Your task to perform on an android device: Show me popular games on the Play Store Image 0: 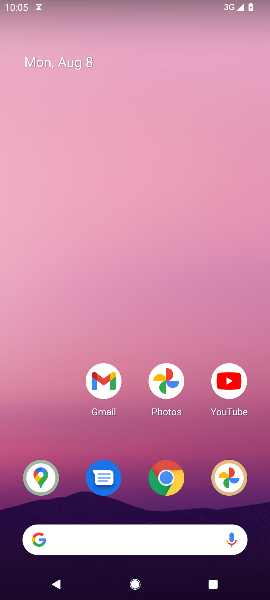
Step 0: press home button
Your task to perform on an android device: Show me popular games on the Play Store Image 1: 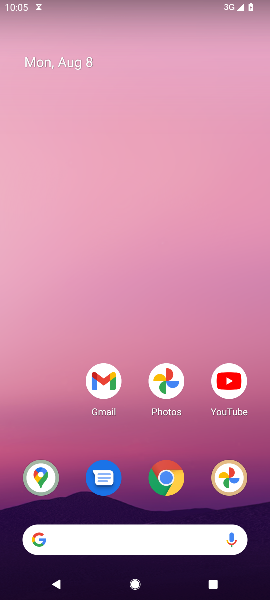
Step 1: drag from (128, 540) to (236, 105)
Your task to perform on an android device: Show me popular games on the Play Store Image 2: 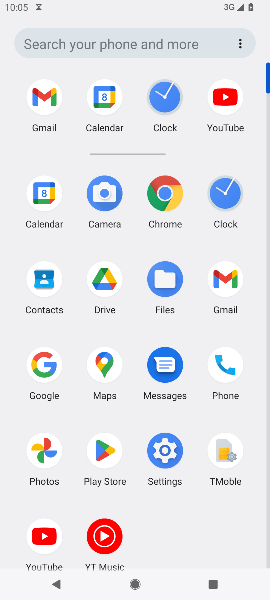
Step 2: click (111, 452)
Your task to perform on an android device: Show me popular games on the Play Store Image 3: 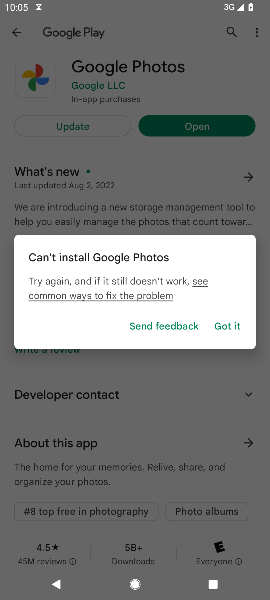
Step 3: click (228, 326)
Your task to perform on an android device: Show me popular games on the Play Store Image 4: 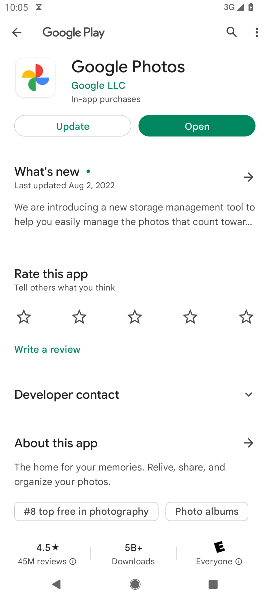
Step 4: click (13, 28)
Your task to perform on an android device: Show me popular games on the Play Store Image 5: 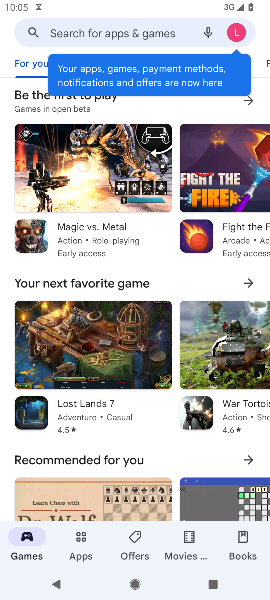
Step 5: task complete